Your task to perform on an android device: check out phone information Image 0: 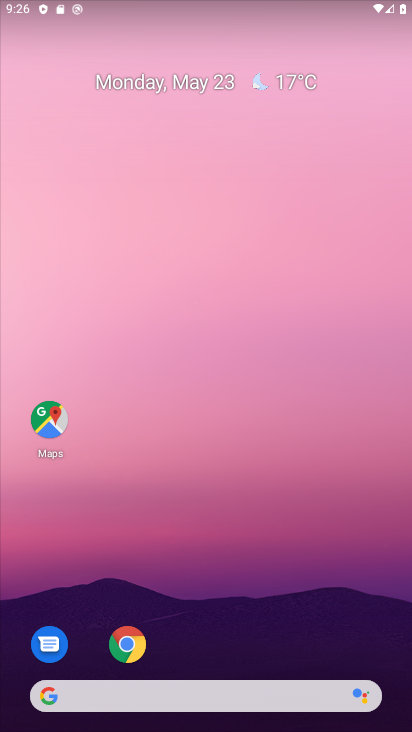
Step 0: drag from (172, 648) to (305, 265)
Your task to perform on an android device: check out phone information Image 1: 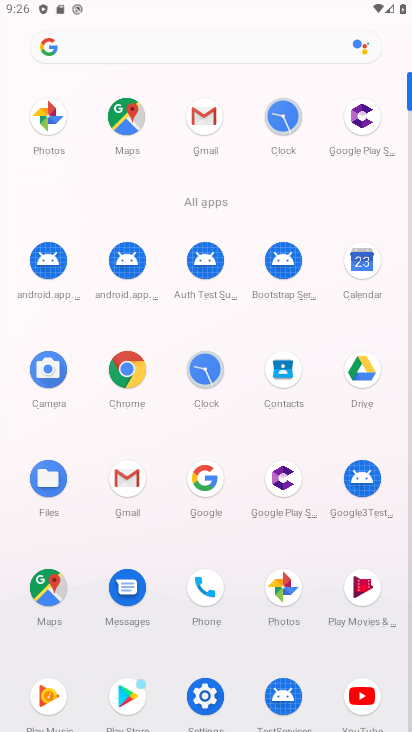
Step 1: click (205, 680)
Your task to perform on an android device: check out phone information Image 2: 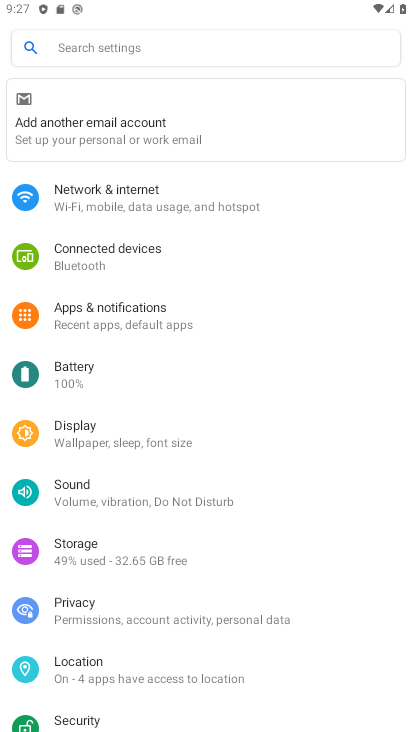
Step 2: task complete